Your task to perform on an android device: Open Wikipedia Image 0: 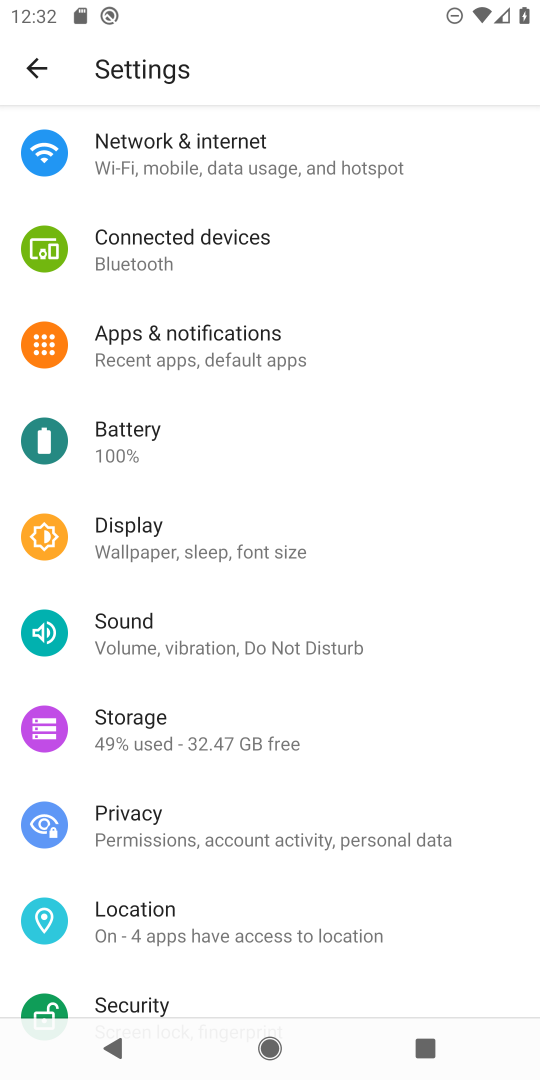
Step 0: press back button
Your task to perform on an android device: Open Wikipedia Image 1: 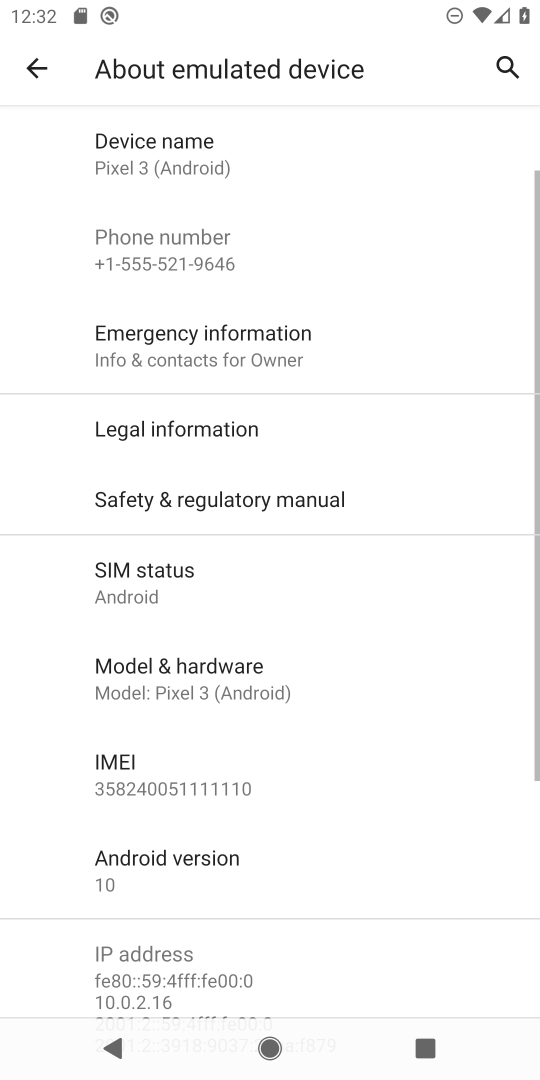
Step 1: press back button
Your task to perform on an android device: Open Wikipedia Image 2: 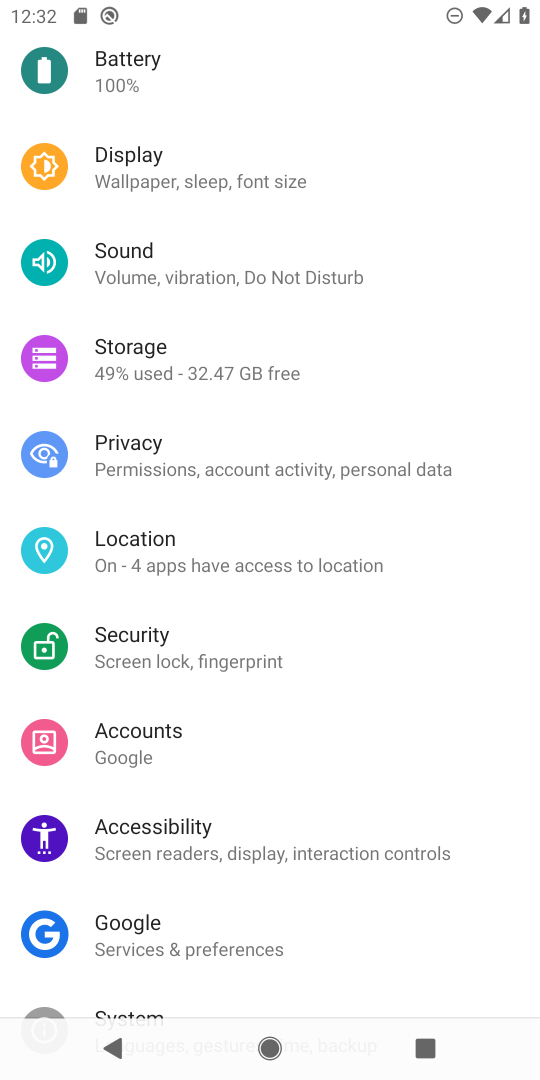
Step 2: press back button
Your task to perform on an android device: Open Wikipedia Image 3: 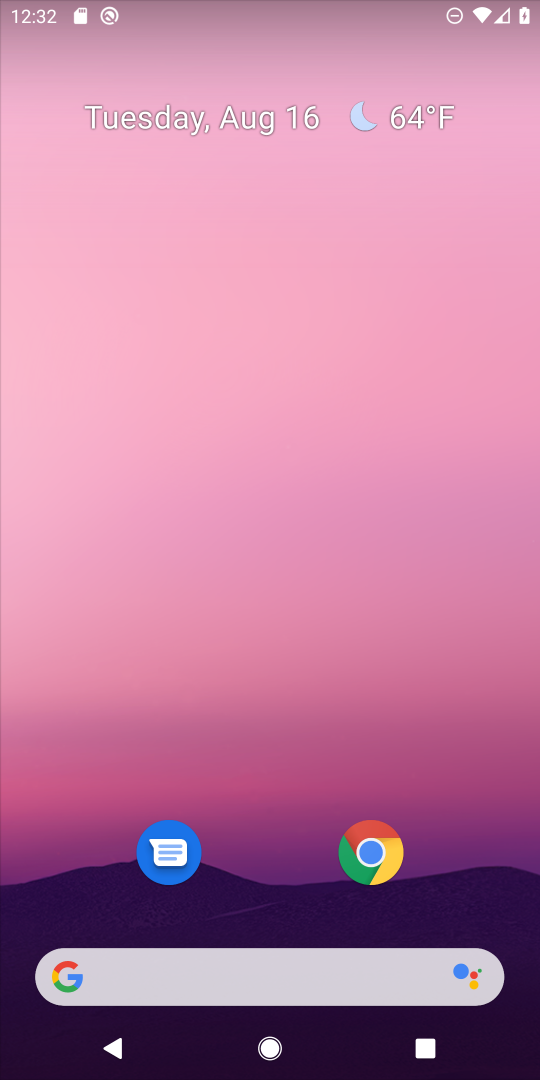
Step 3: click (351, 832)
Your task to perform on an android device: Open Wikipedia Image 4: 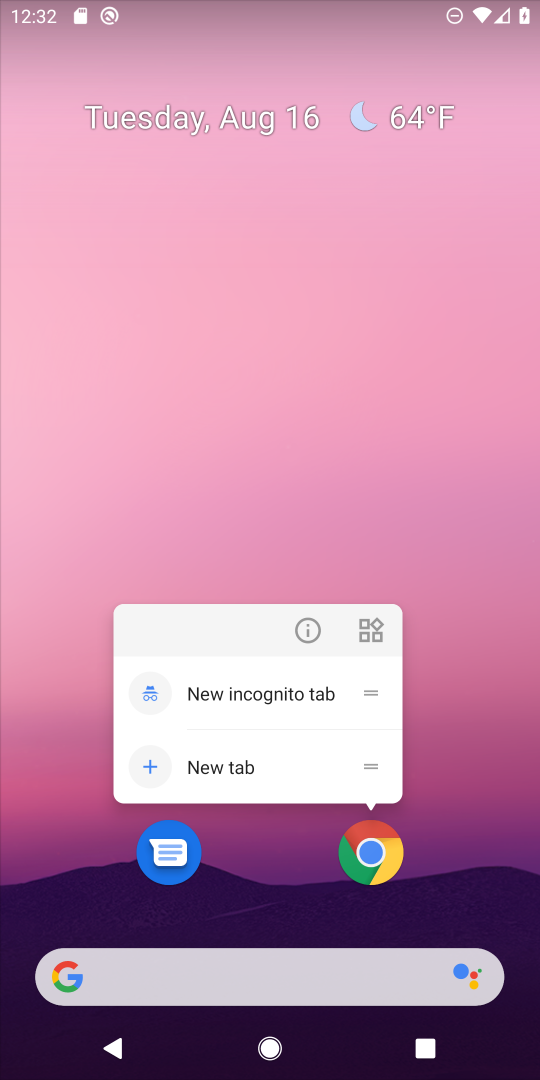
Step 4: click (366, 853)
Your task to perform on an android device: Open Wikipedia Image 5: 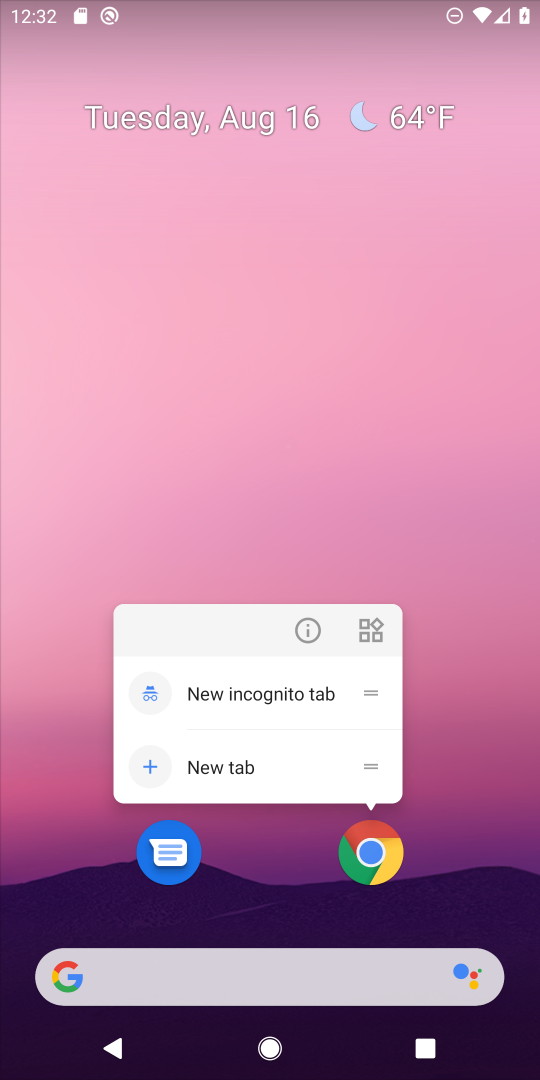
Step 5: click (380, 868)
Your task to perform on an android device: Open Wikipedia Image 6: 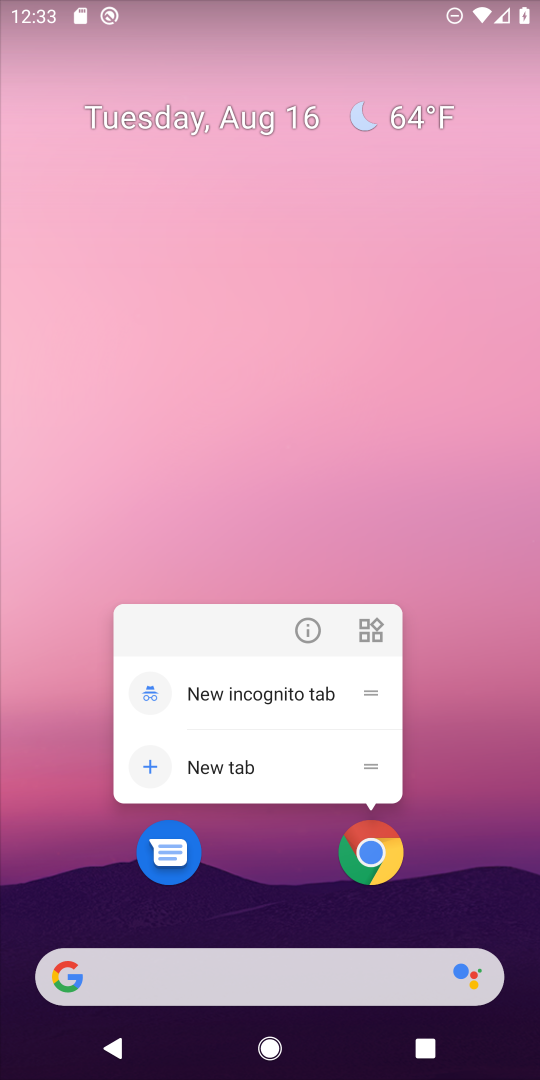
Step 6: click (364, 847)
Your task to perform on an android device: Open Wikipedia Image 7: 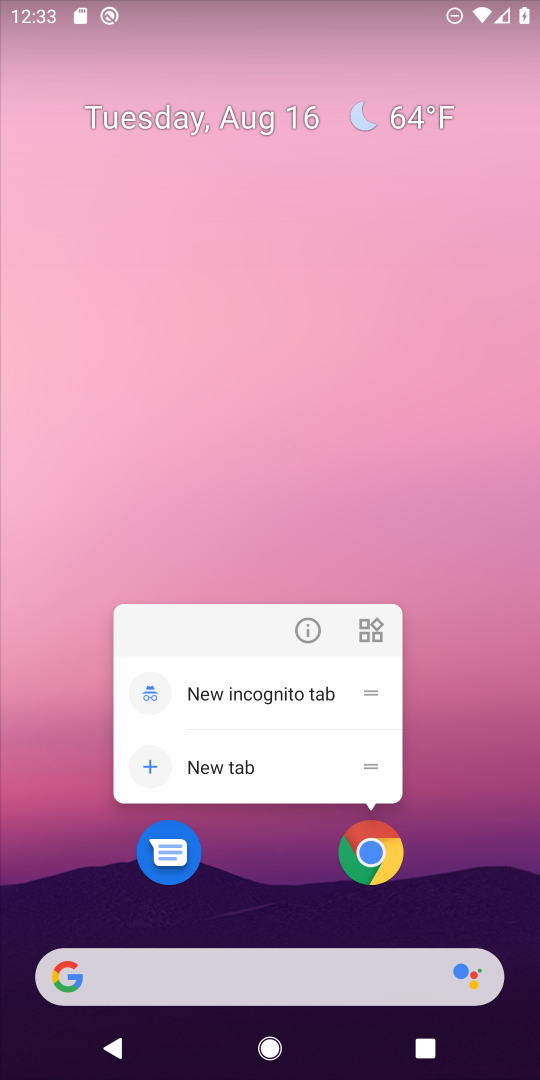
Step 7: click (364, 847)
Your task to perform on an android device: Open Wikipedia Image 8: 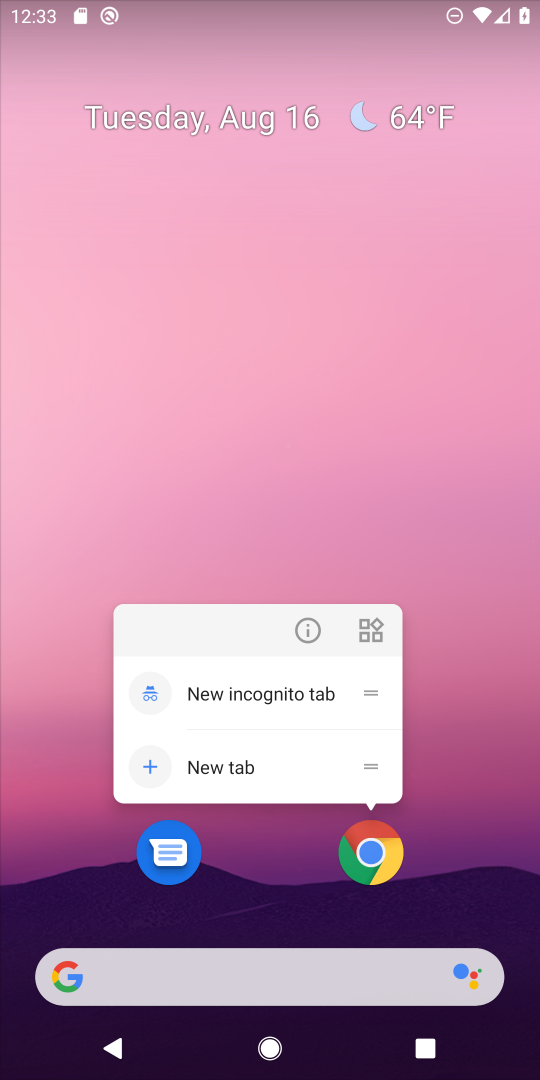
Step 8: click (364, 855)
Your task to perform on an android device: Open Wikipedia Image 9: 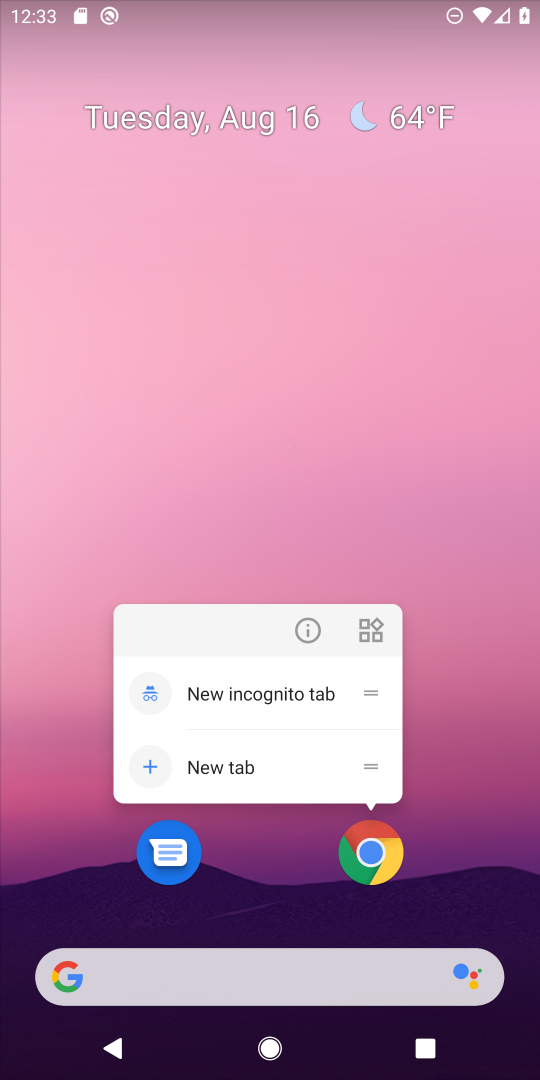
Step 9: click (364, 855)
Your task to perform on an android device: Open Wikipedia Image 10: 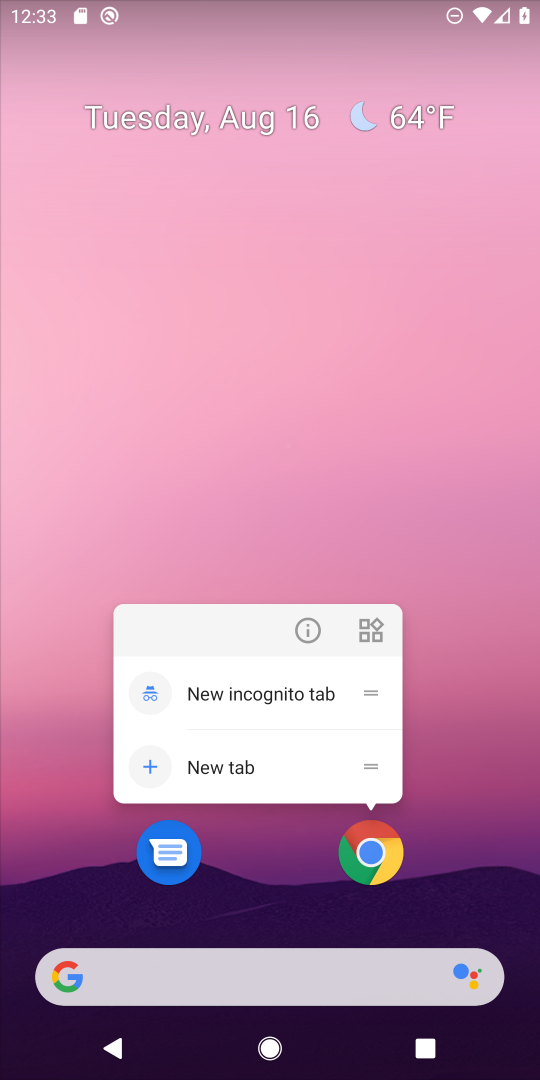
Step 10: click (364, 855)
Your task to perform on an android device: Open Wikipedia Image 11: 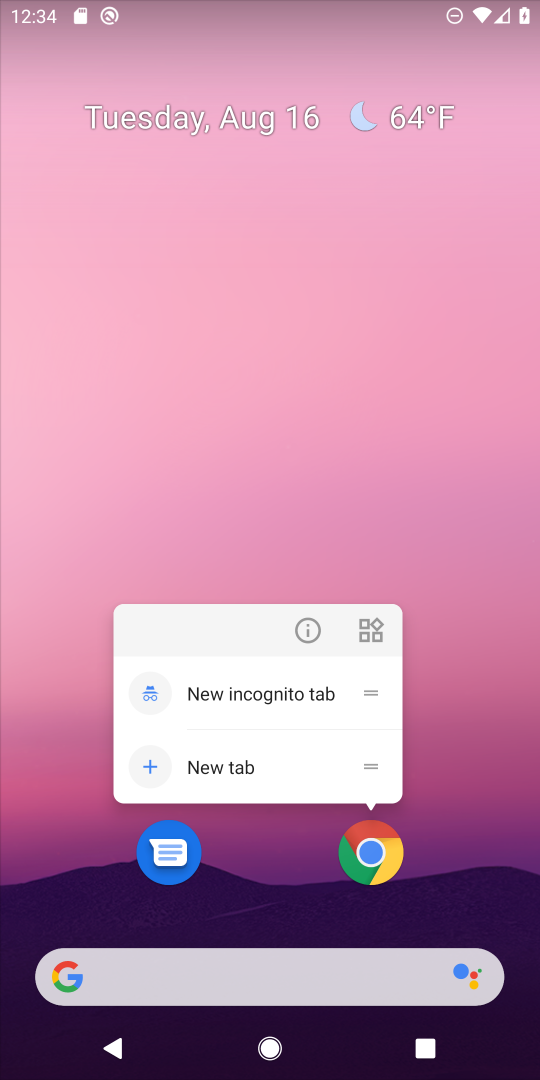
Step 11: click (364, 855)
Your task to perform on an android device: Open Wikipedia Image 12: 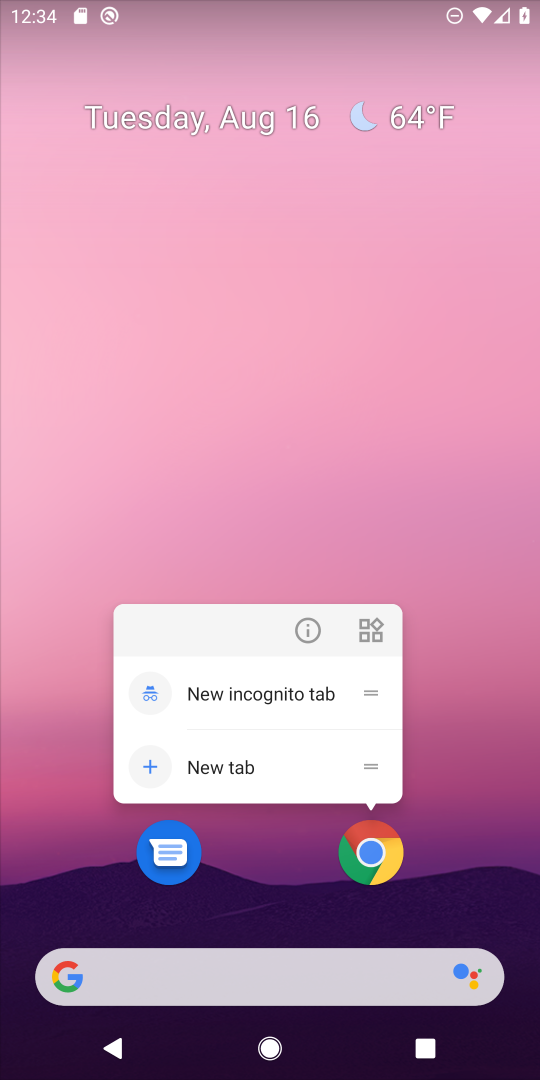
Step 12: click (366, 860)
Your task to perform on an android device: Open Wikipedia Image 13: 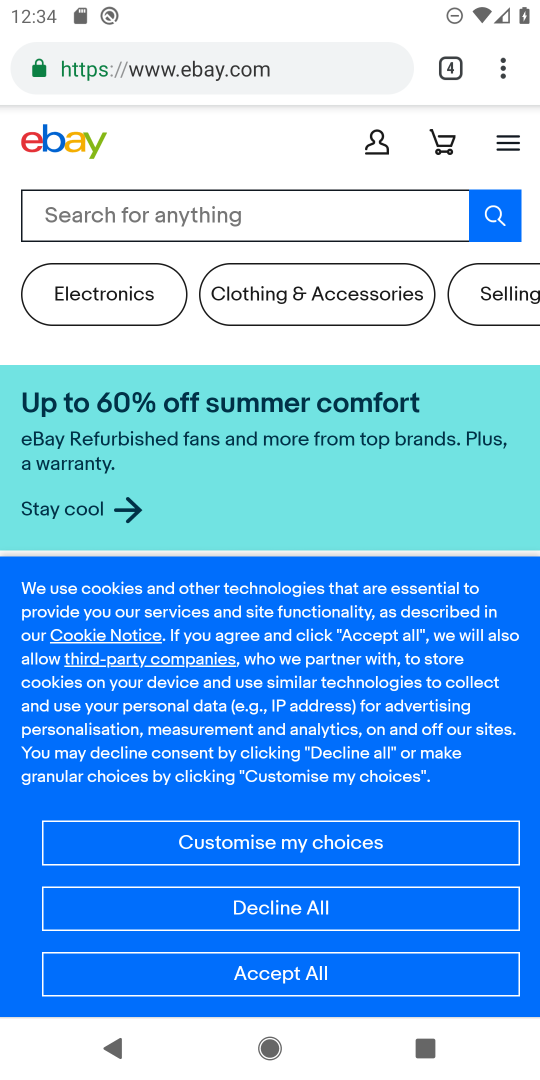
Step 13: click (451, 72)
Your task to perform on an android device: Open Wikipedia Image 14: 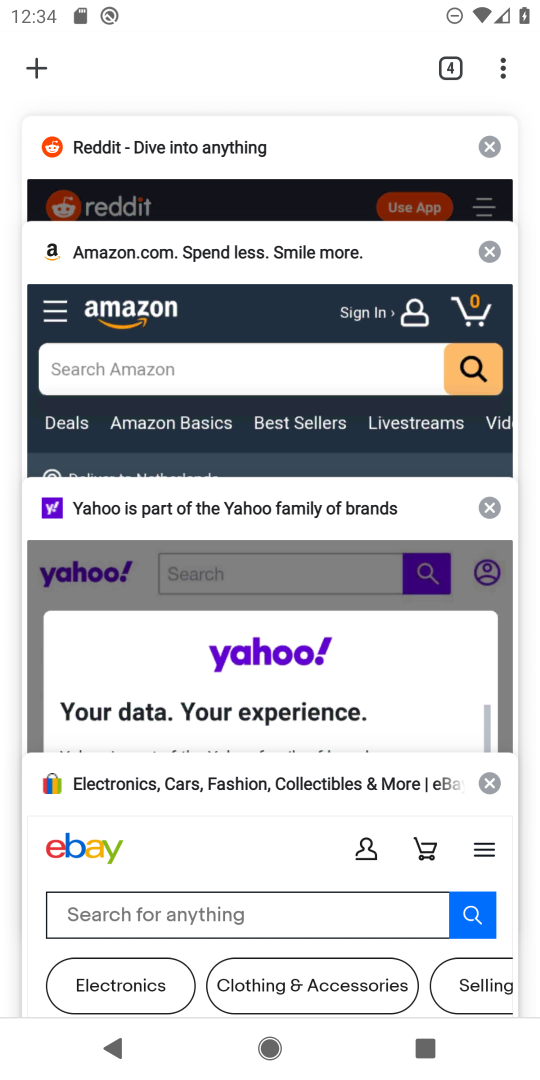
Step 14: click (34, 51)
Your task to perform on an android device: Open Wikipedia Image 15: 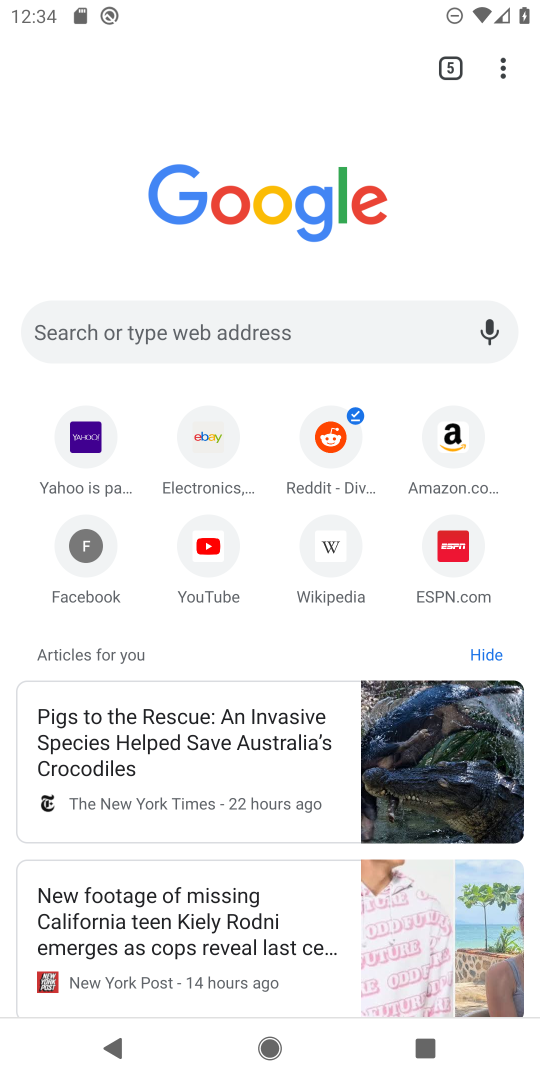
Step 15: click (340, 551)
Your task to perform on an android device: Open Wikipedia Image 16: 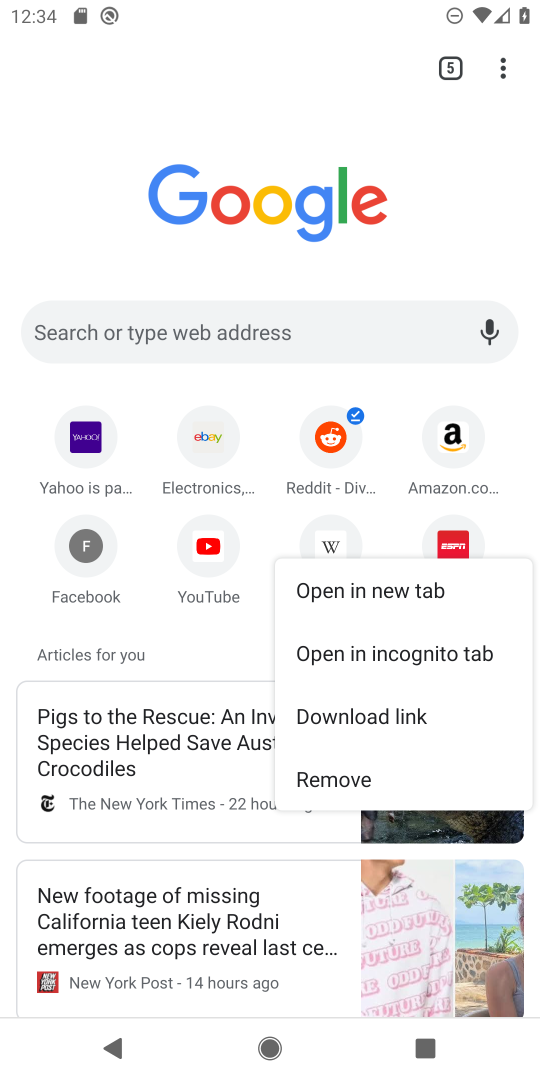
Step 16: click (338, 541)
Your task to perform on an android device: Open Wikipedia Image 17: 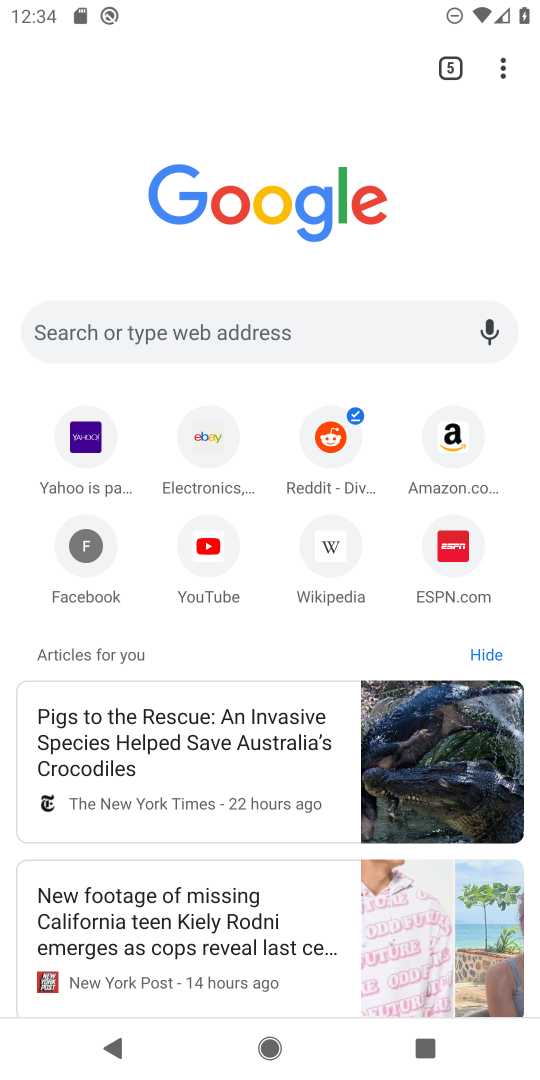
Step 17: click (333, 542)
Your task to perform on an android device: Open Wikipedia Image 18: 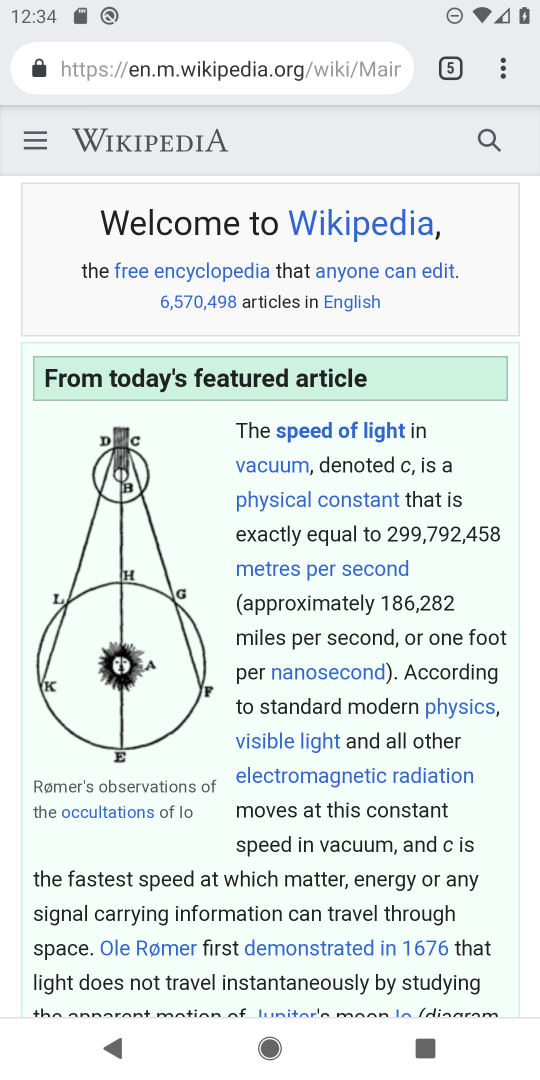
Step 18: task complete